Your task to perform on an android device: turn off airplane mode Image 0: 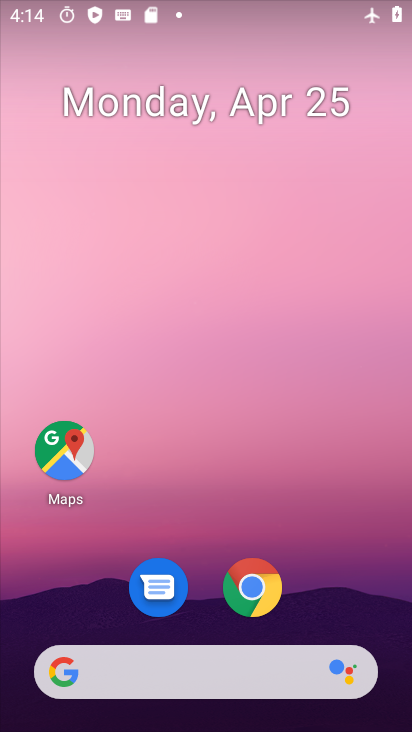
Step 0: drag from (332, 322) to (303, 93)
Your task to perform on an android device: turn off airplane mode Image 1: 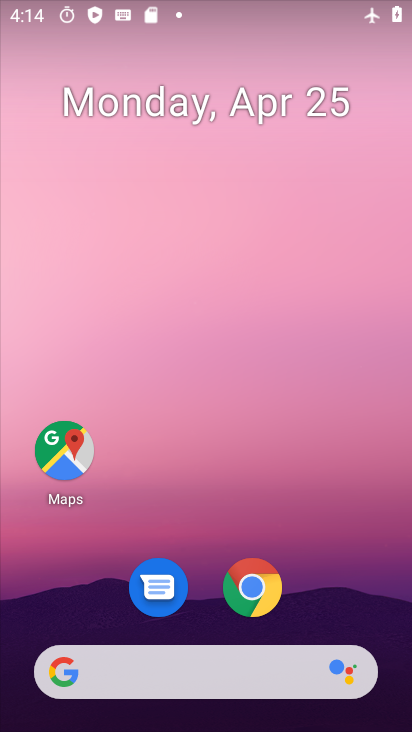
Step 1: drag from (311, 7) to (282, 500)
Your task to perform on an android device: turn off airplane mode Image 2: 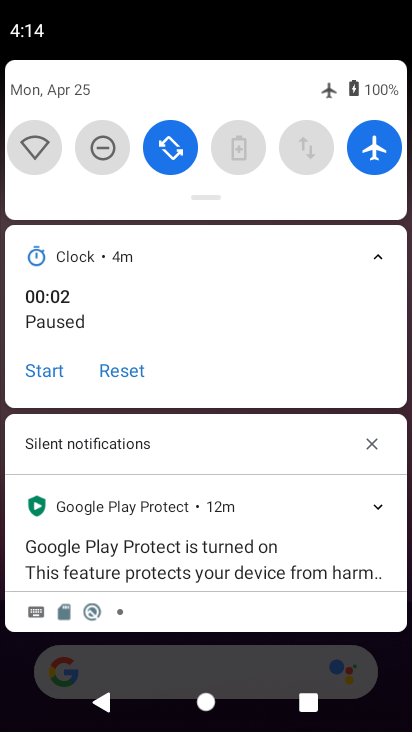
Step 2: click (363, 146)
Your task to perform on an android device: turn off airplane mode Image 3: 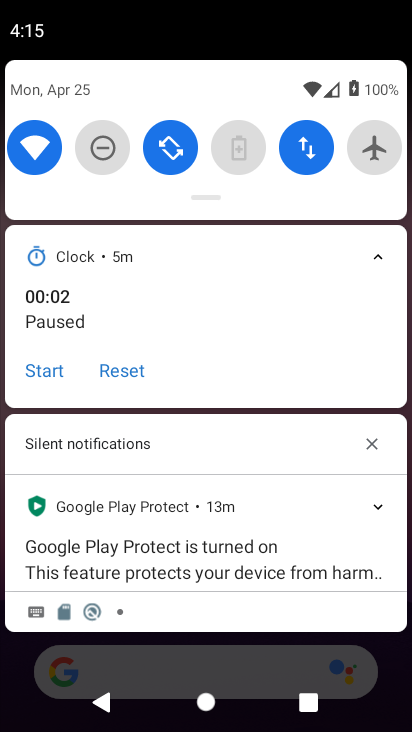
Step 3: task complete